Your task to perform on an android device: refresh tabs in the chrome app Image 0: 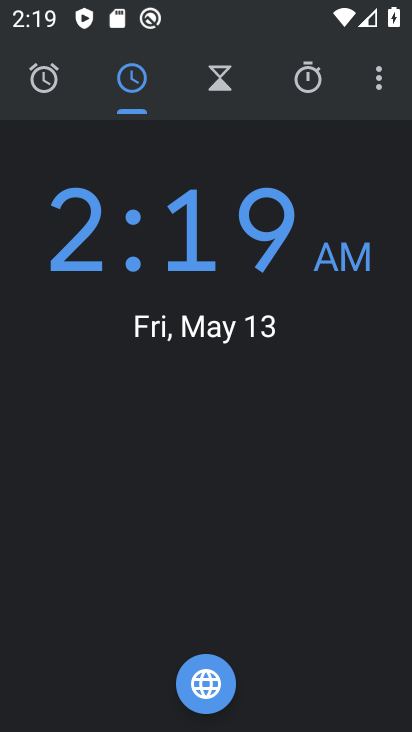
Step 0: press home button
Your task to perform on an android device: refresh tabs in the chrome app Image 1: 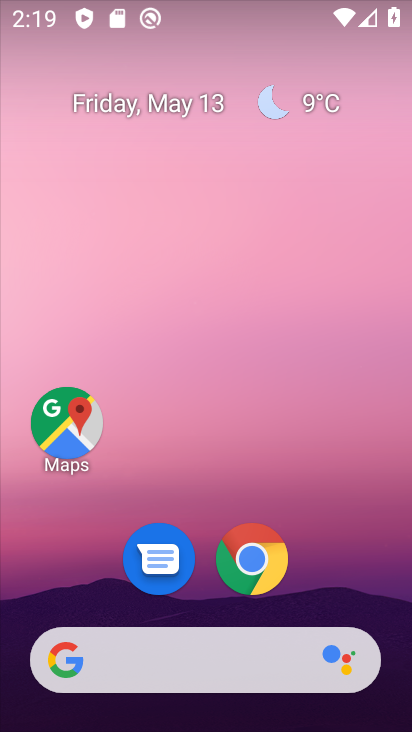
Step 1: click (251, 556)
Your task to perform on an android device: refresh tabs in the chrome app Image 2: 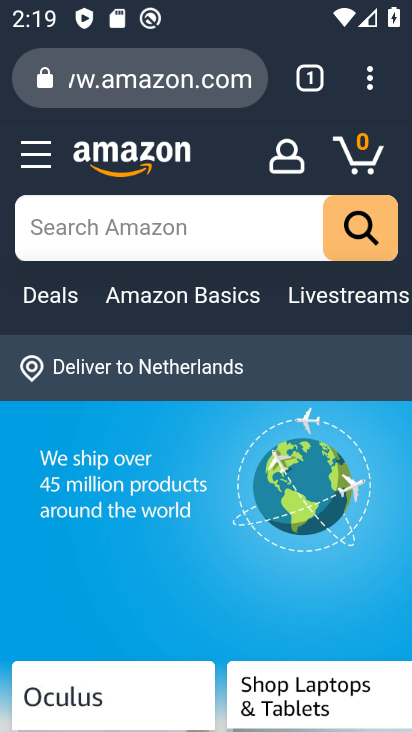
Step 2: click (369, 86)
Your task to perform on an android device: refresh tabs in the chrome app Image 3: 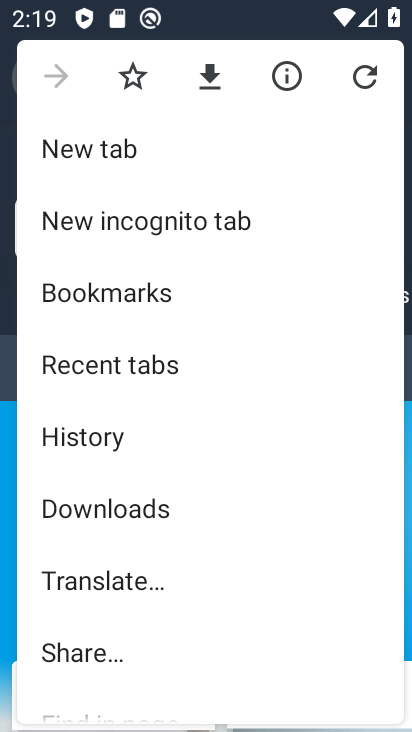
Step 3: click (363, 79)
Your task to perform on an android device: refresh tabs in the chrome app Image 4: 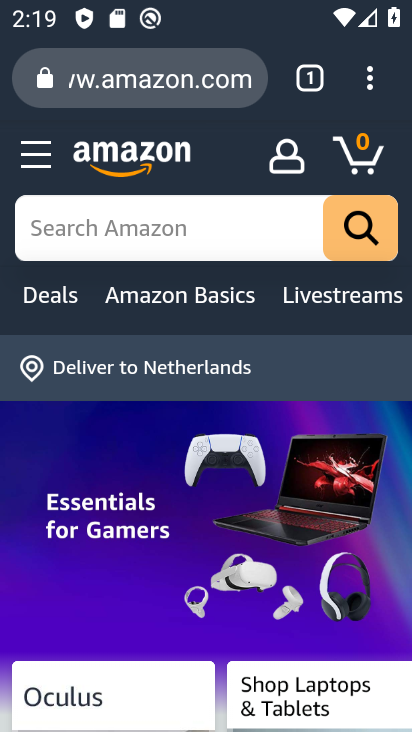
Step 4: task complete